Your task to perform on an android device: Play the last video I watched on Youtube Image 0: 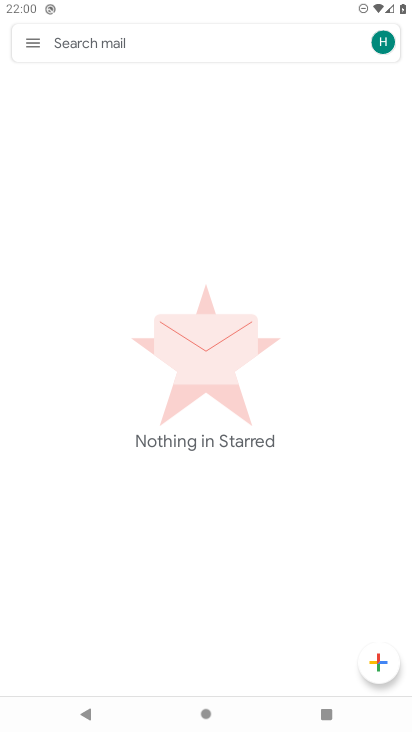
Step 0: press home button
Your task to perform on an android device: Play the last video I watched on Youtube Image 1: 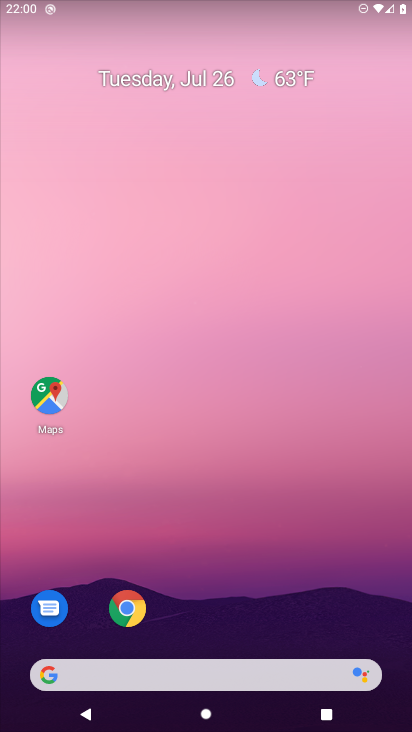
Step 1: drag from (57, 625) to (242, 103)
Your task to perform on an android device: Play the last video I watched on Youtube Image 2: 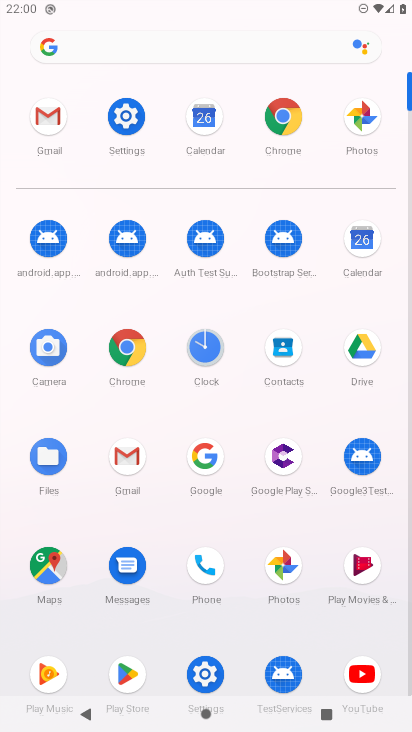
Step 2: click (368, 679)
Your task to perform on an android device: Play the last video I watched on Youtube Image 3: 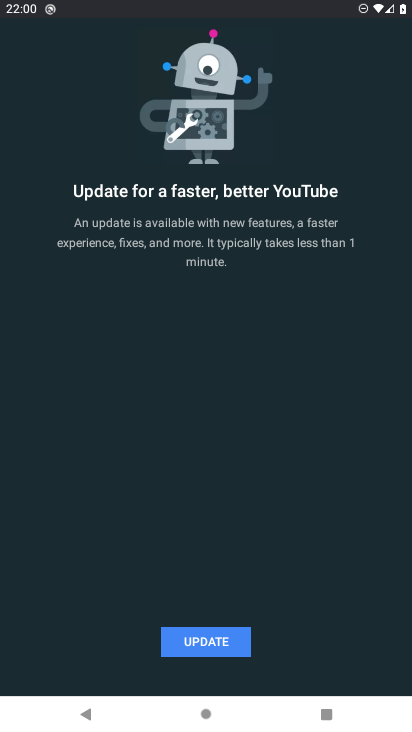
Step 3: click (193, 647)
Your task to perform on an android device: Play the last video I watched on Youtube Image 4: 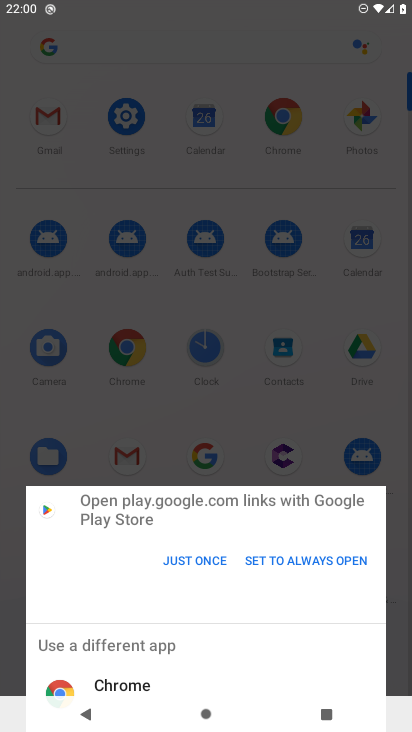
Step 4: click (194, 555)
Your task to perform on an android device: Play the last video I watched on Youtube Image 5: 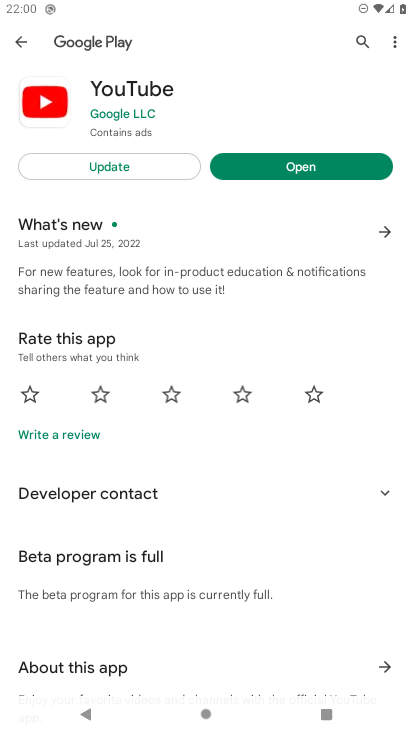
Step 5: task complete